Your task to perform on an android device: set the stopwatch Image 0: 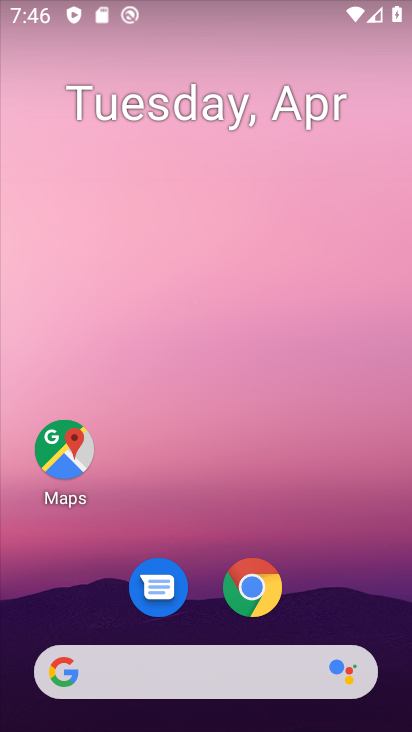
Step 0: drag from (200, 620) to (289, 129)
Your task to perform on an android device: set the stopwatch Image 1: 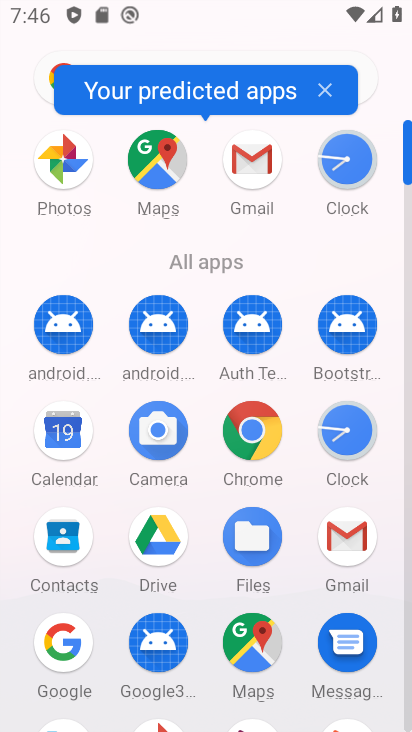
Step 1: click (334, 440)
Your task to perform on an android device: set the stopwatch Image 2: 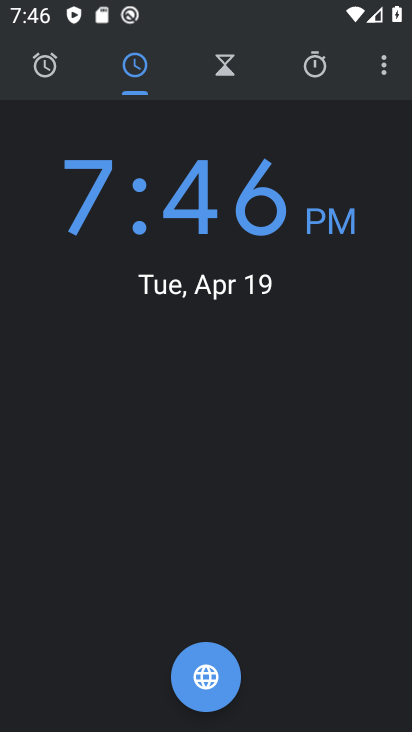
Step 2: click (300, 66)
Your task to perform on an android device: set the stopwatch Image 3: 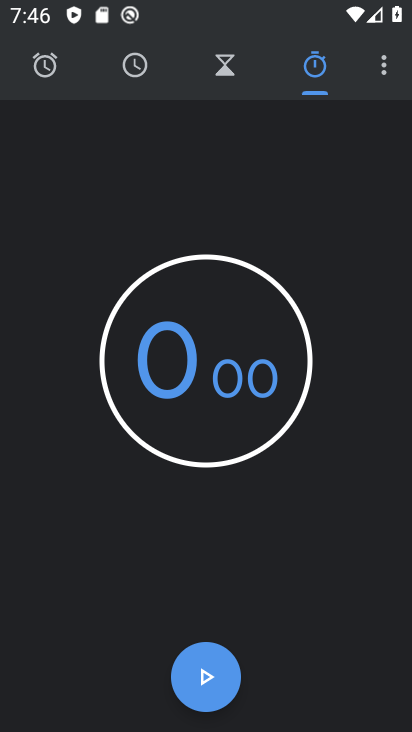
Step 3: click (214, 673)
Your task to perform on an android device: set the stopwatch Image 4: 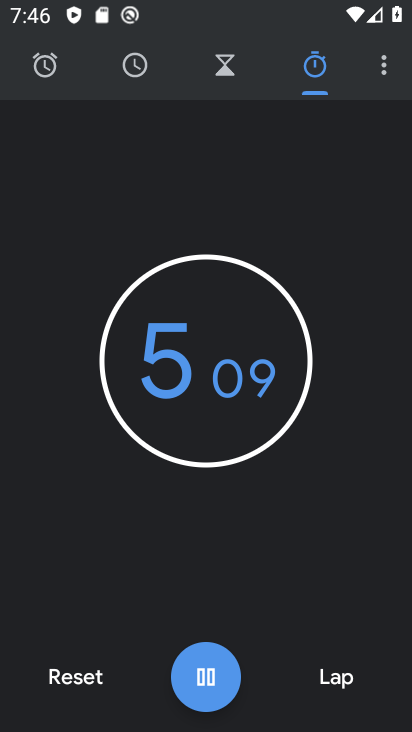
Step 4: task complete